Your task to perform on an android device: Open location settings Image 0: 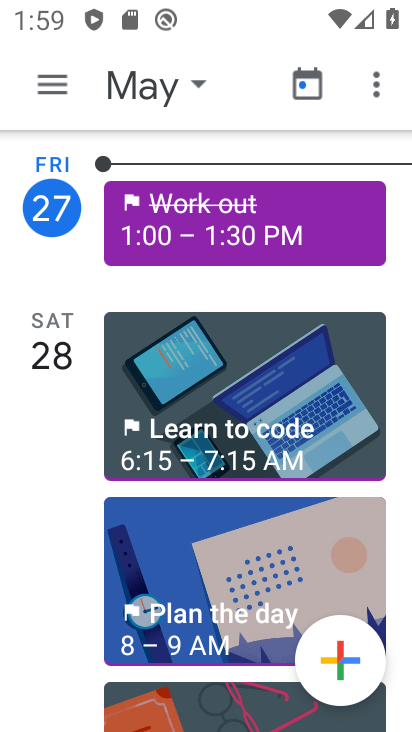
Step 0: press home button
Your task to perform on an android device: Open location settings Image 1: 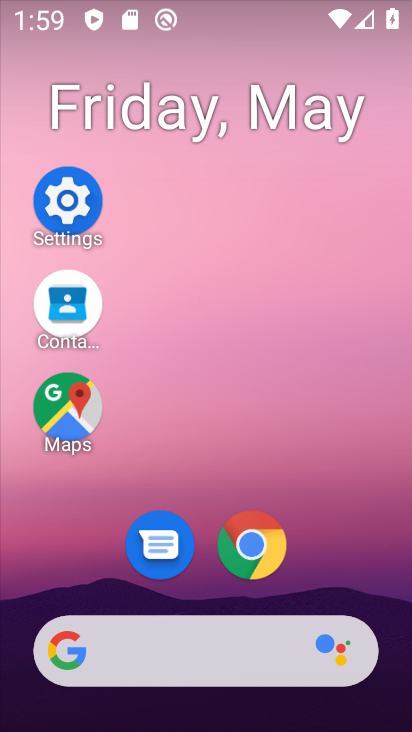
Step 1: click (57, 218)
Your task to perform on an android device: Open location settings Image 2: 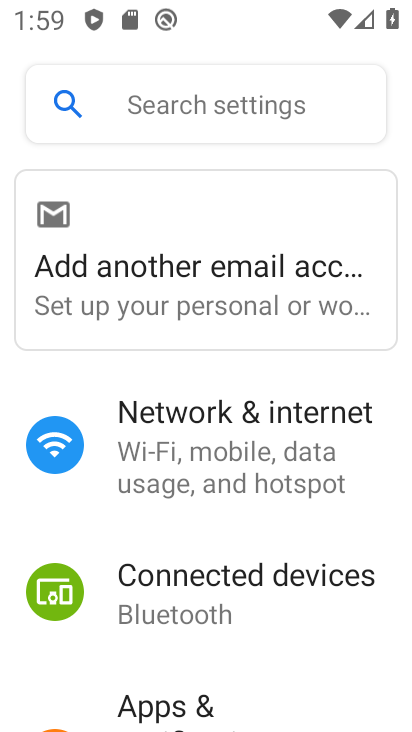
Step 2: drag from (294, 584) to (252, 192)
Your task to perform on an android device: Open location settings Image 3: 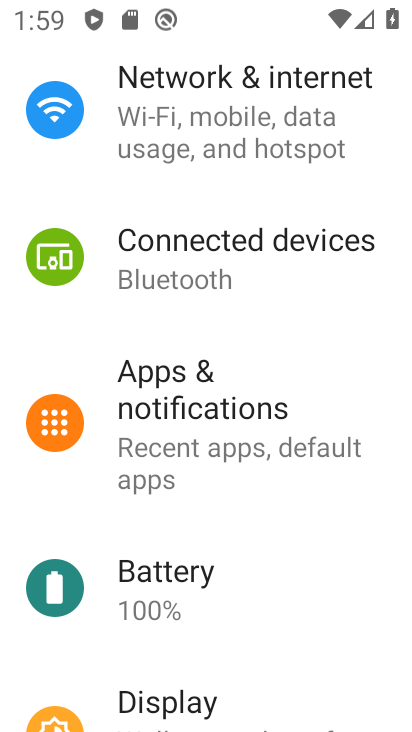
Step 3: drag from (312, 556) to (301, 195)
Your task to perform on an android device: Open location settings Image 4: 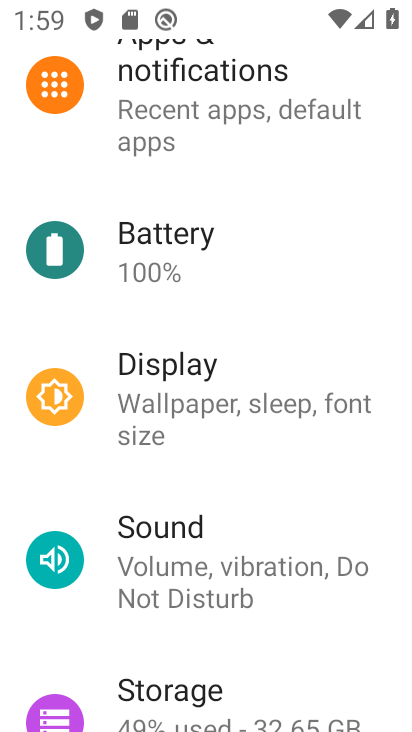
Step 4: drag from (307, 380) to (312, 229)
Your task to perform on an android device: Open location settings Image 5: 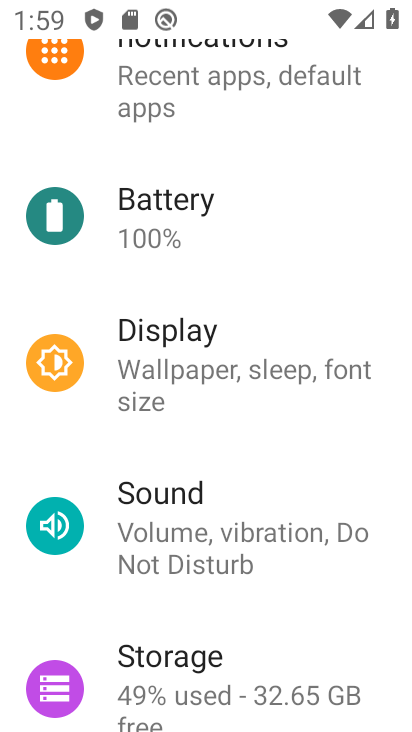
Step 5: drag from (226, 645) to (268, 154)
Your task to perform on an android device: Open location settings Image 6: 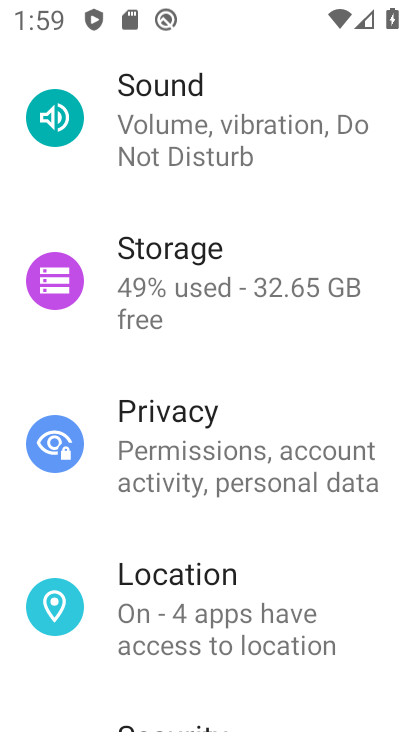
Step 6: click (256, 576)
Your task to perform on an android device: Open location settings Image 7: 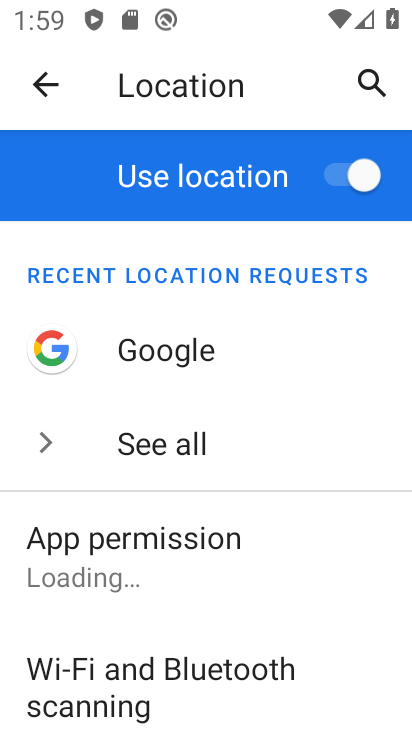
Step 7: task complete